Your task to perform on an android device: When is my next meeting? Image 0: 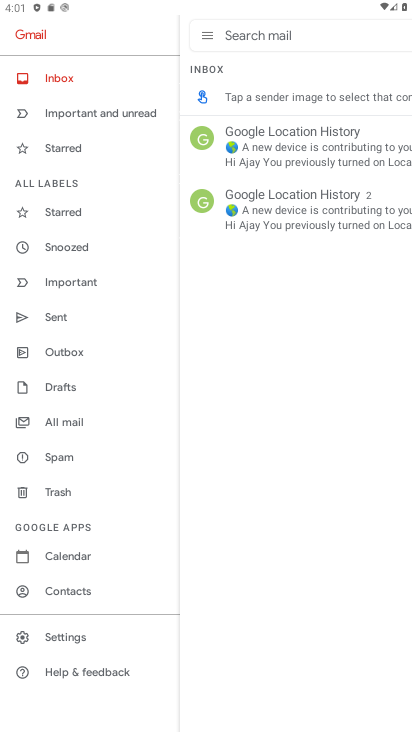
Step 0: press home button
Your task to perform on an android device: When is my next meeting? Image 1: 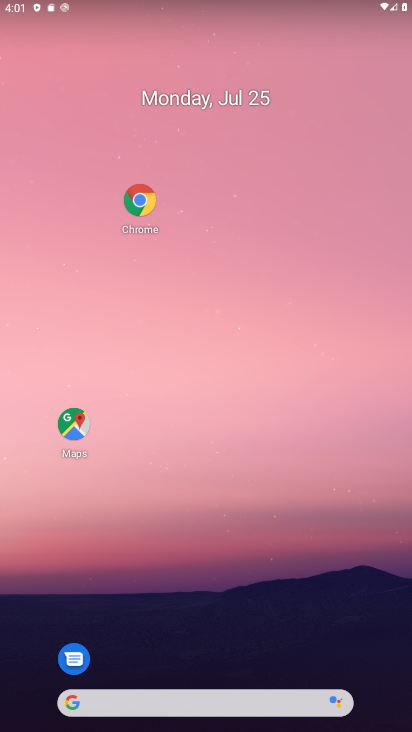
Step 1: drag from (202, 647) to (270, 234)
Your task to perform on an android device: When is my next meeting? Image 2: 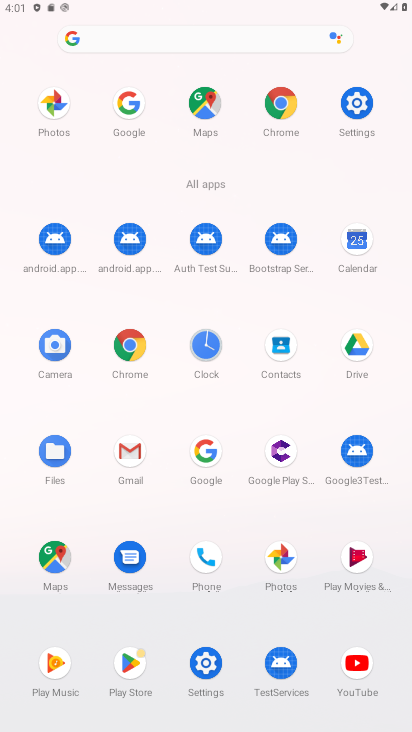
Step 2: click (340, 260)
Your task to perform on an android device: When is my next meeting? Image 3: 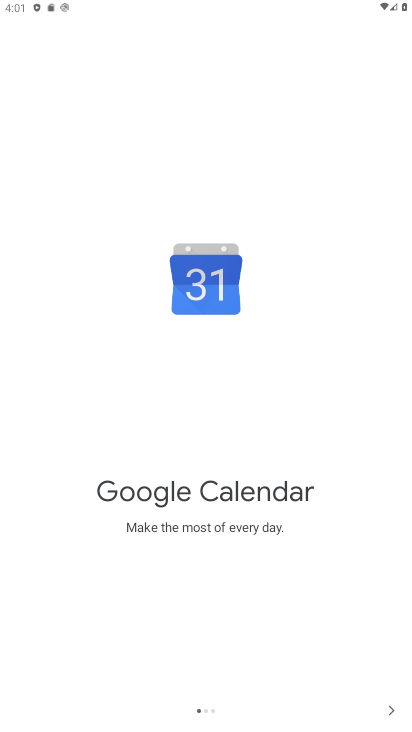
Step 3: click (395, 702)
Your task to perform on an android device: When is my next meeting? Image 4: 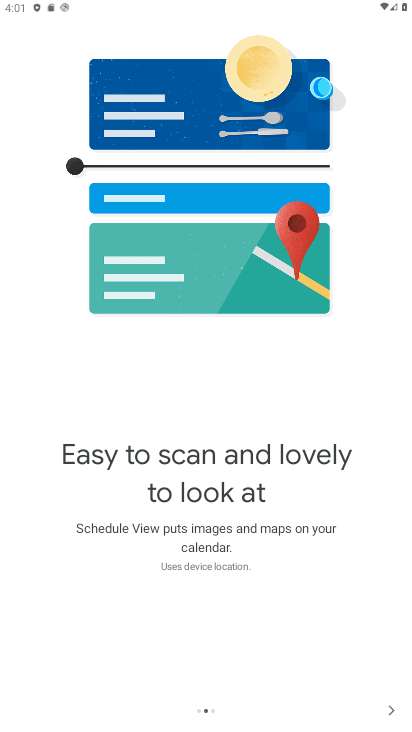
Step 4: click (395, 702)
Your task to perform on an android device: When is my next meeting? Image 5: 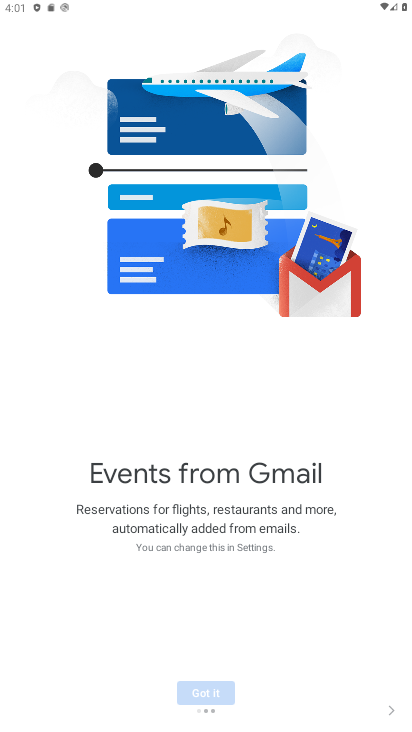
Step 5: click (395, 702)
Your task to perform on an android device: When is my next meeting? Image 6: 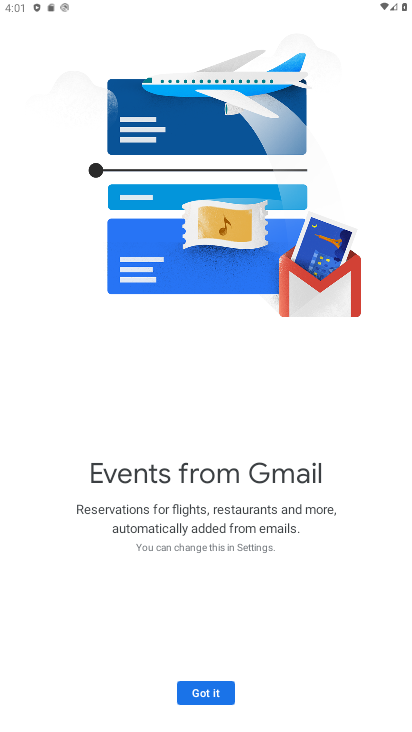
Step 6: click (395, 702)
Your task to perform on an android device: When is my next meeting? Image 7: 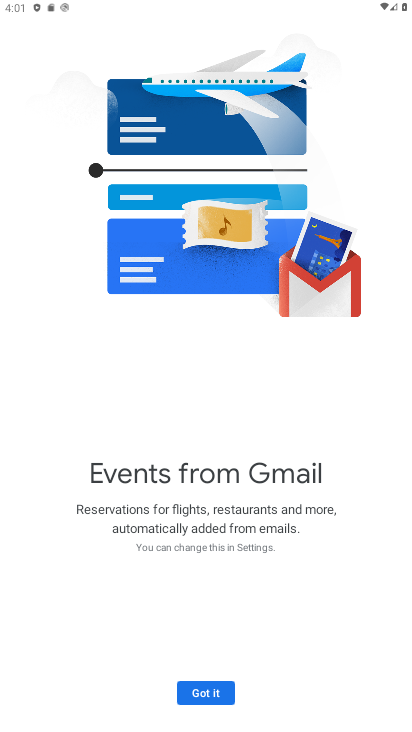
Step 7: click (216, 697)
Your task to perform on an android device: When is my next meeting? Image 8: 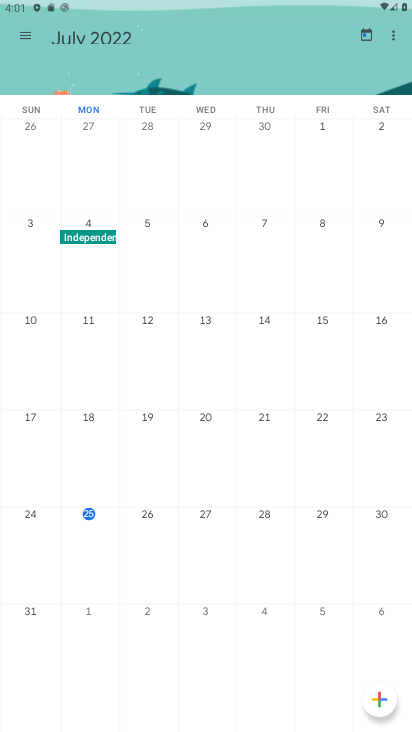
Step 8: click (161, 550)
Your task to perform on an android device: When is my next meeting? Image 9: 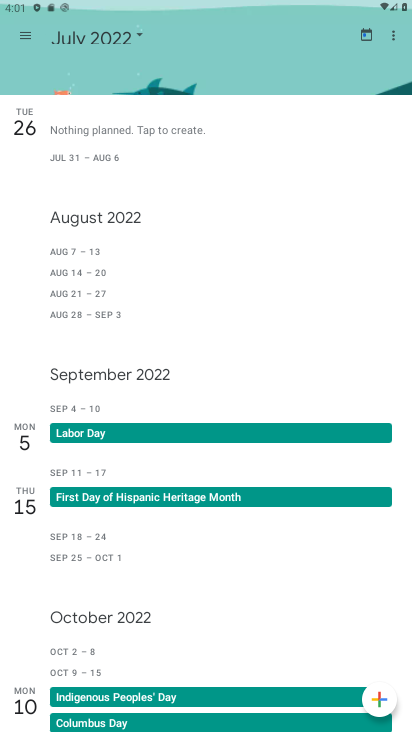
Step 9: click (230, 532)
Your task to perform on an android device: When is my next meeting? Image 10: 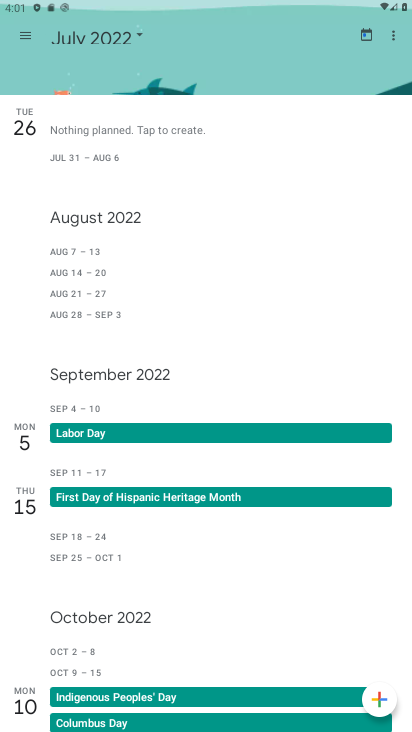
Step 10: task complete